Your task to perform on an android device: turn on improve location accuracy Image 0: 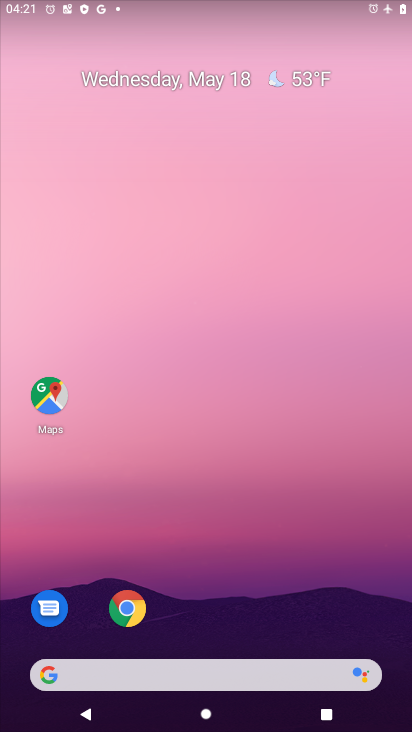
Step 0: drag from (336, 630) to (333, 5)
Your task to perform on an android device: turn on improve location accuracy Image 1: 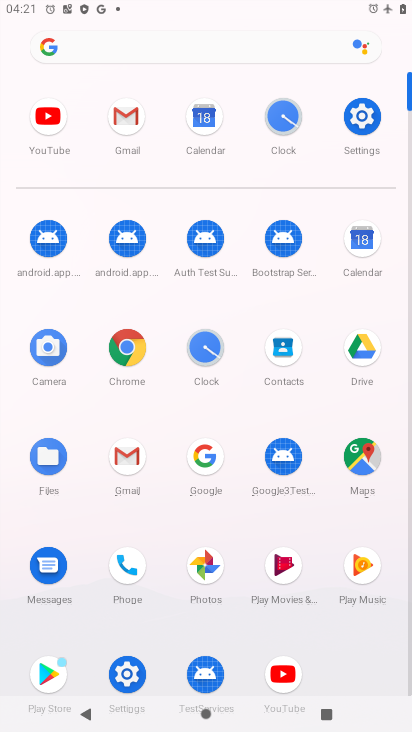
Step 1: click (363, 121)
Your task to perform on an android device: turn on improve location accuracy Image 2: 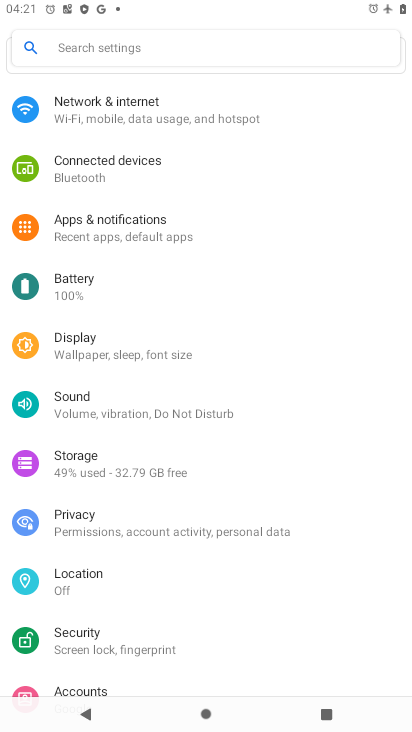
Step 2: click (76, 581)
Your task to perform on an android device: turn on improve location accuracy Image 3: 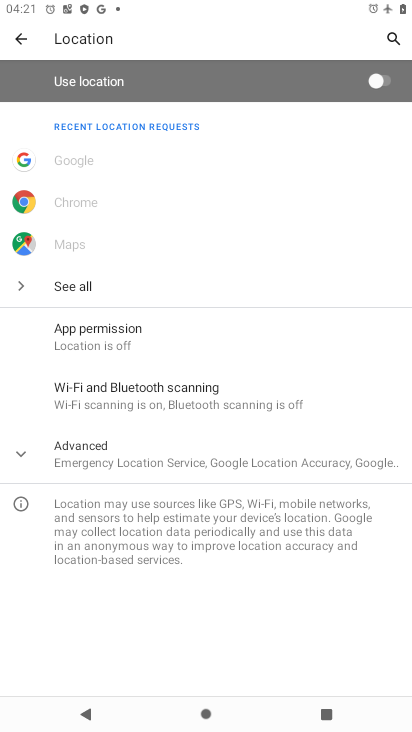
Step 3: click (17, 454)
Your task to perform on an android device: turn on improve location accuracy Image 4: 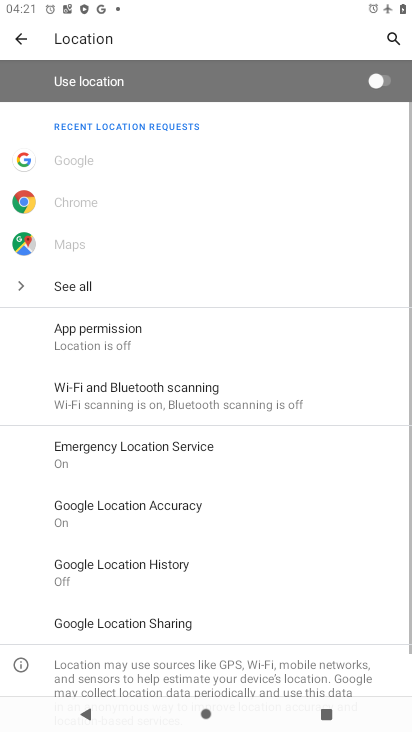
Step 4: drag from (139, 451) to (160, 326)
Your task to perform on an android device: turn on improve location accuracy Image 5: 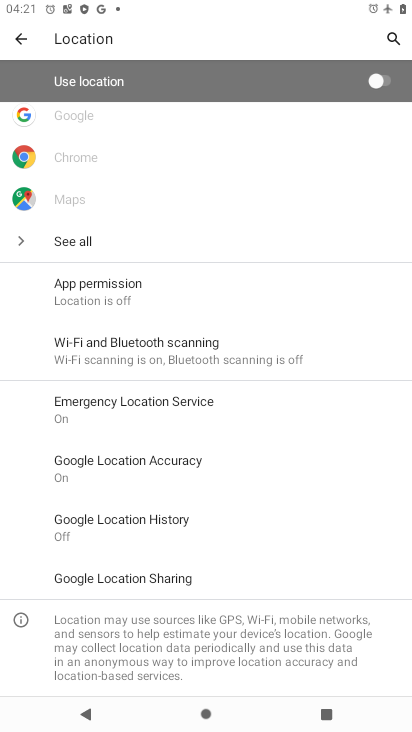
Step 5: click (69, 460)
Your task to perform on an android device: turn on improve location accuracy Image 6: 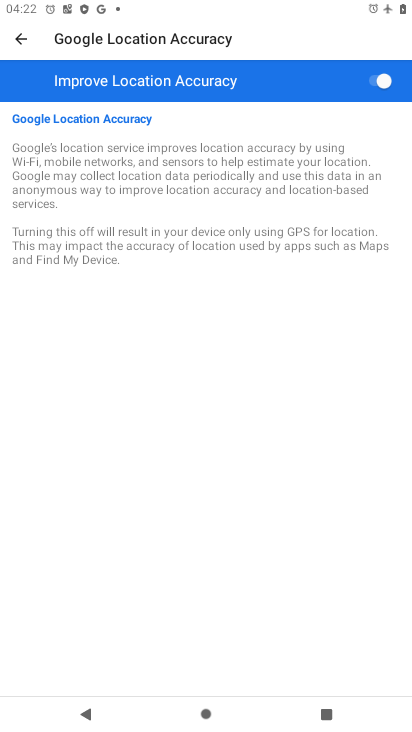
Step 6: task complete